Your task to perform on an android device: Open settings Image 0: 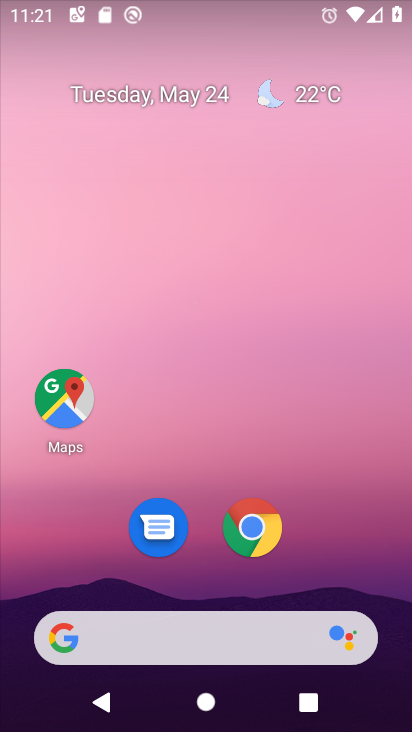
Step 0: press home button
Your task to perform on an android device: Open settings Image 1: 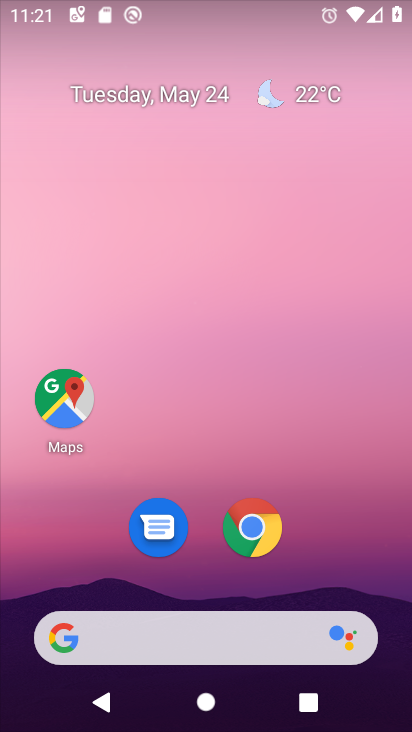
Step 1: drag from (176, 640) to (327, 113)
Your task to perform on an android device: Open settings Image 2: 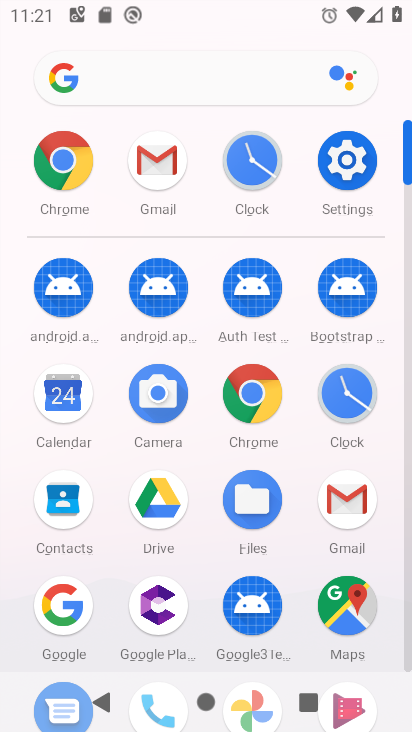
Step 2: click (349, 166)
Your task to perform on an android device: Open settings Image 3: 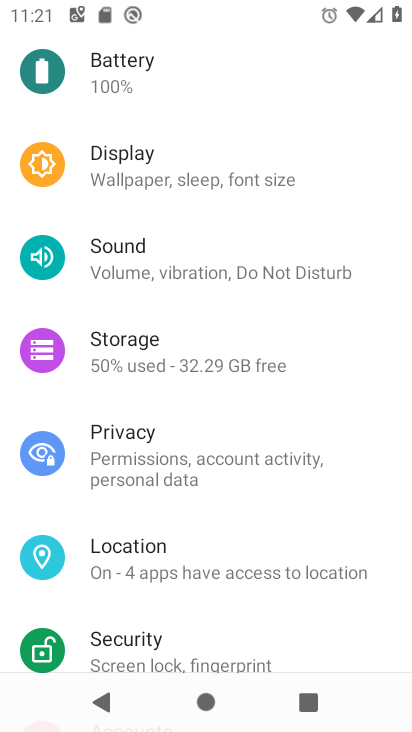
Step 3: task complete